Your task to perform on an android device: Turn on the flashlight Image 0: 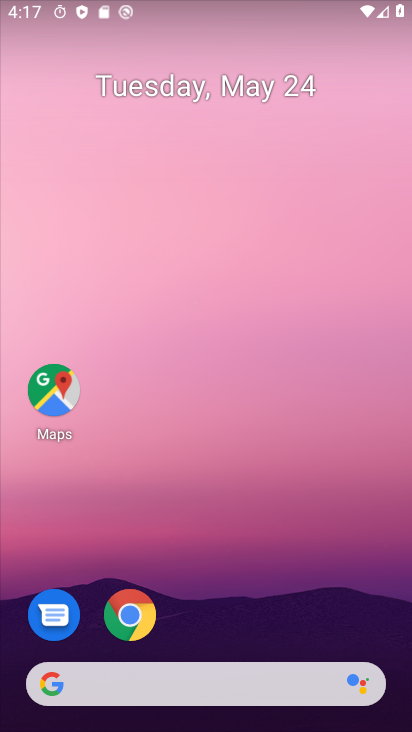
Step 0: drag from (275, 606) to (342, 3)
Your task to perform on an android device: Turn on the flashlight Image 1: 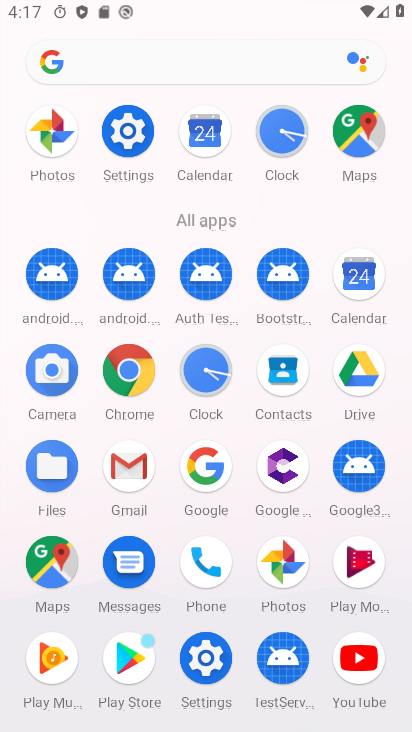
Step 1: click (122, 135)
Your task to perform on an android device: Turn on the flashlight Image 2: 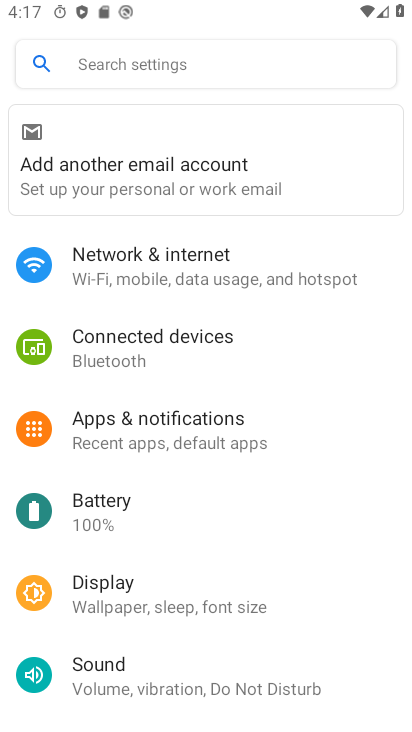
Step 2: click (127, 65)
Your task to perform on an android device: Turn on the flashlight Image 3: 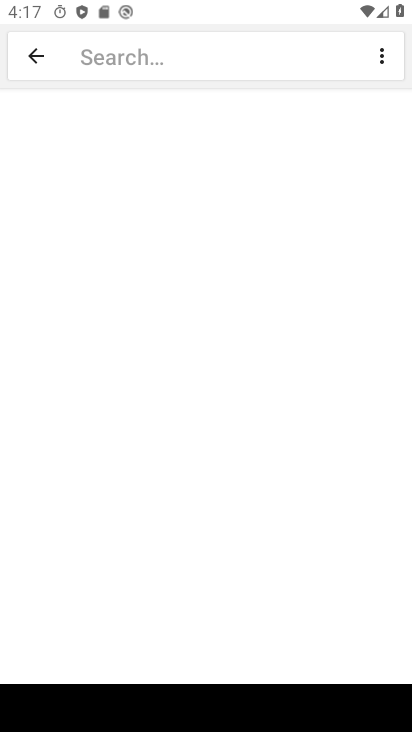
Step 3: type "flashlight"
Your task to perform on an android device: Turn on the flashlight Image 4: 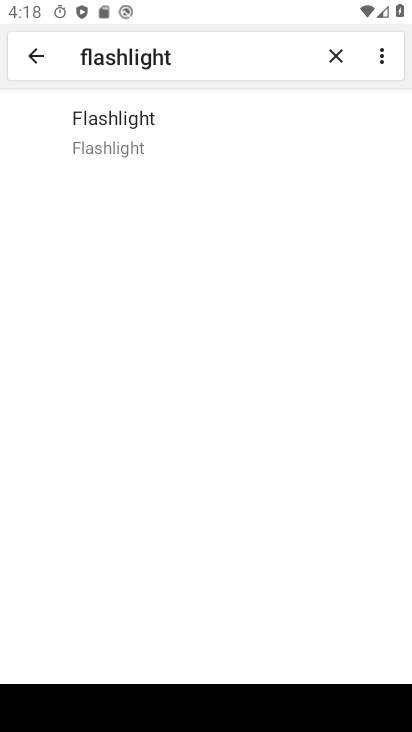
Step 4: click (121, 132)
Your task to perform on an android device: Turn on the flashlight Image 5: 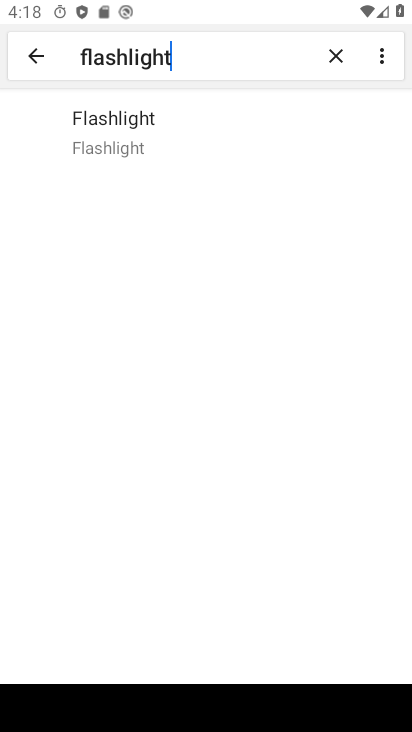
Step 5: click (108, 111)
Your task to perform on an android device: Turn on the flashlight Image 6: 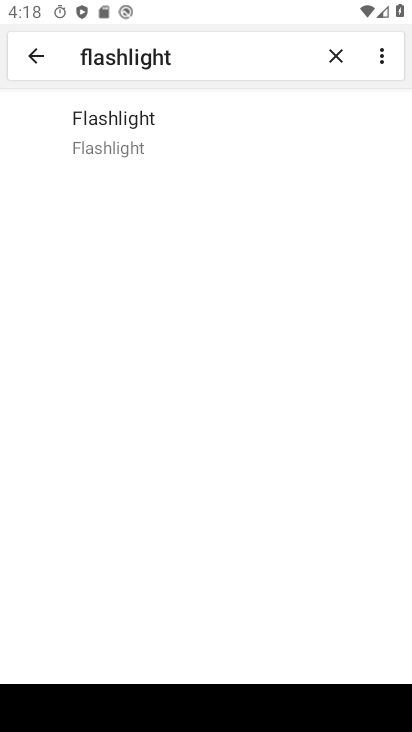
Step 6: task complete